Your task to perform on an android device: change the upload size in google photos Image 0: 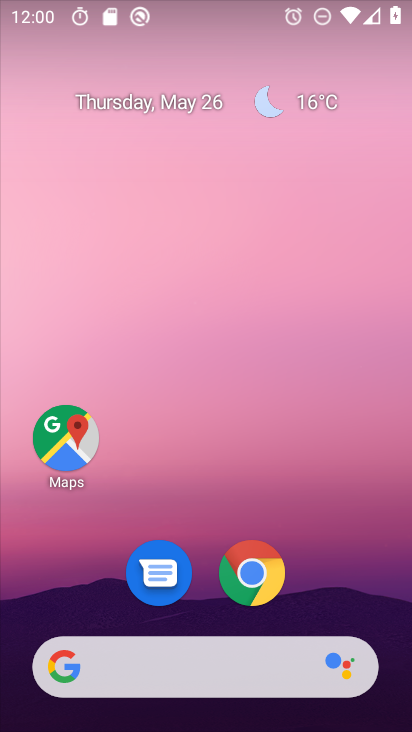
Step 0: drag from (364, 635) to (387, 18)
Your task to perform on an android device: change the upload size in google photos Image 1: 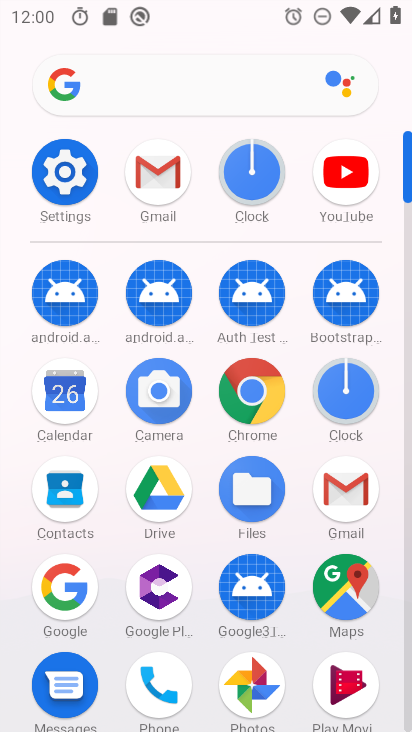
Step 1: click (247, 689)
Your task to perform on an android device: change the upload size in google photos Image 2: 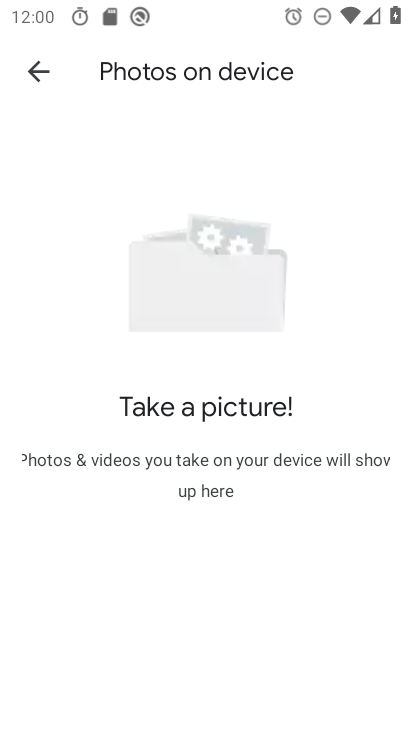
Step 2: click (44, 76)
Your task to perform on an android device: change the upload size in google photos Image 3: 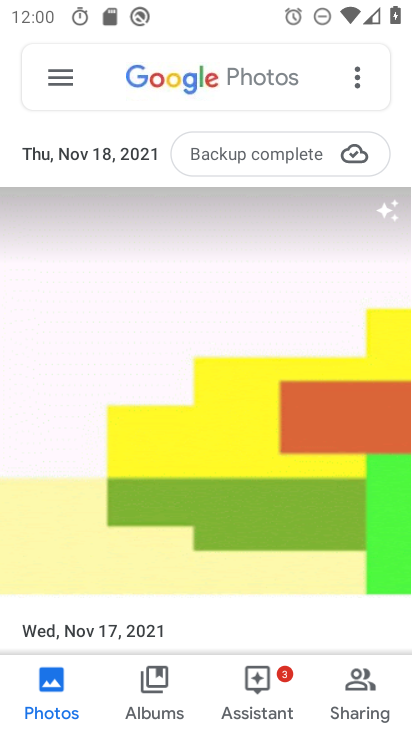
Step 3: click (56, 77)
Your task to perform on an android device: change the upload size in google photos Image 4: 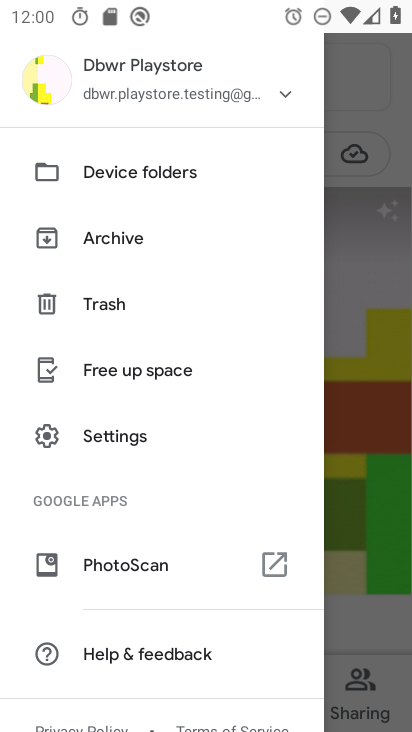
Step 4: click (111, 435)
Your task to perform on an android device: change the upload size in google photos Image 5: 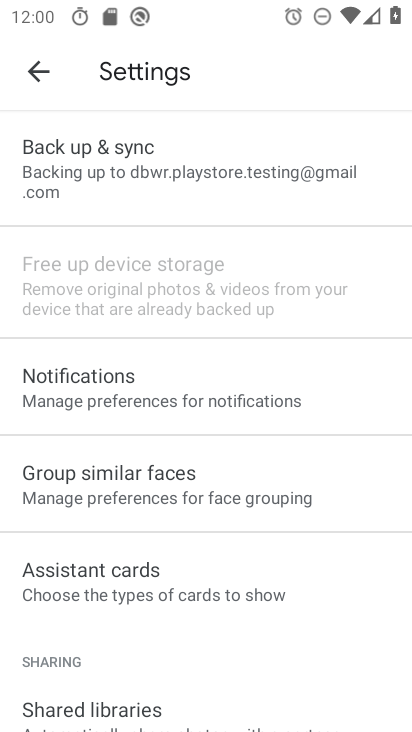
Step 5: click (74, 165)
Your task to perform on an android device: change the upload size in google photos Image 6: 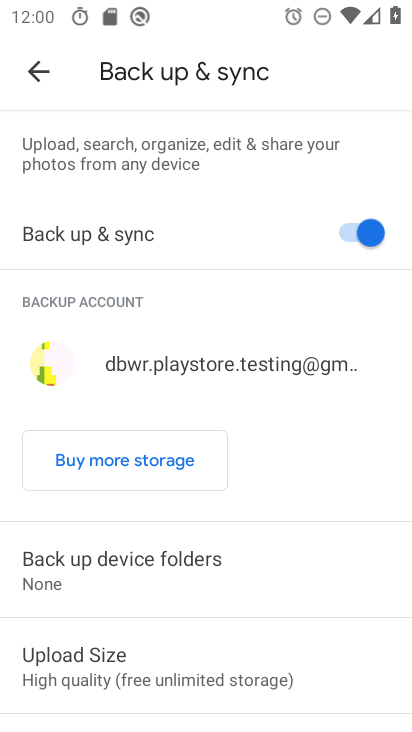
Step 6: click (68, 672)
Your task to perform on an android device: change the upload size in google photos Image 7: 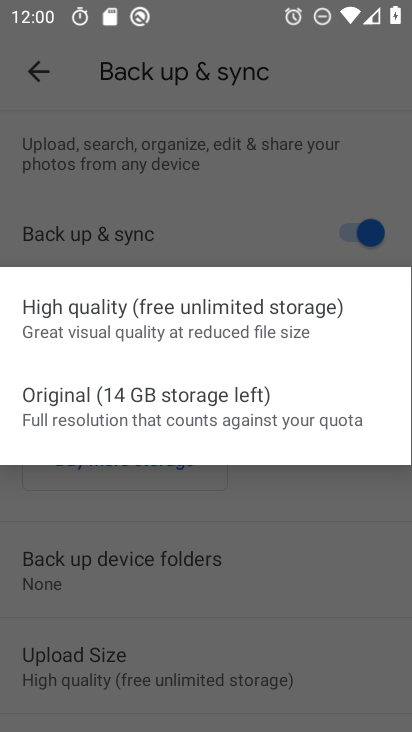
Step 7: click (120, 411)
Your task to perform on an android device: change the upload size in google photos Image 8: 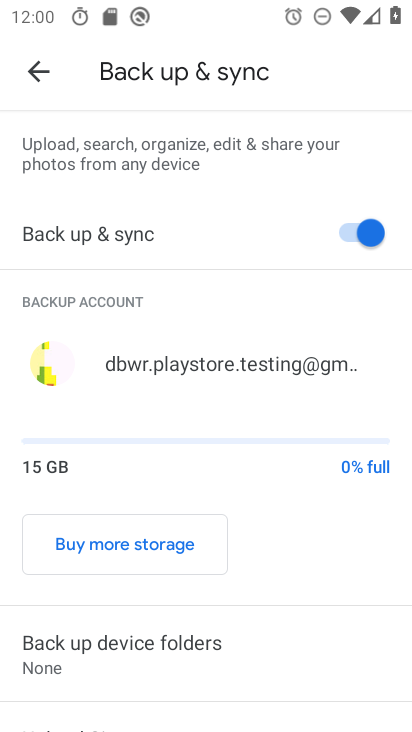
Step 8: task complete